Your task to perform on an android device: toggle pop-ups in chrome Image 0: 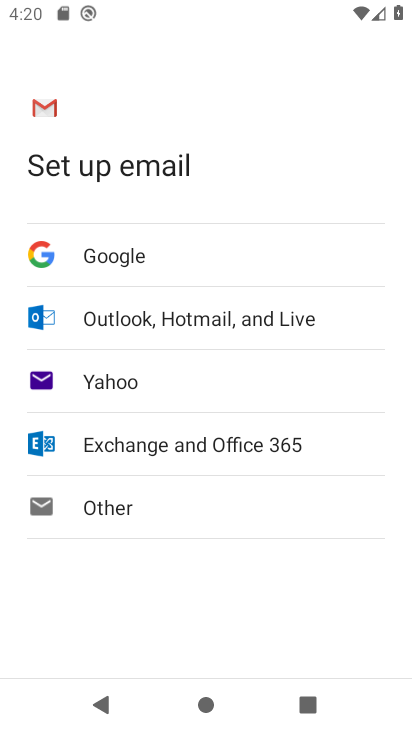
Step 0: press home button
Your task to perform on an android device: toggle pop-ups in chrome Image 1: 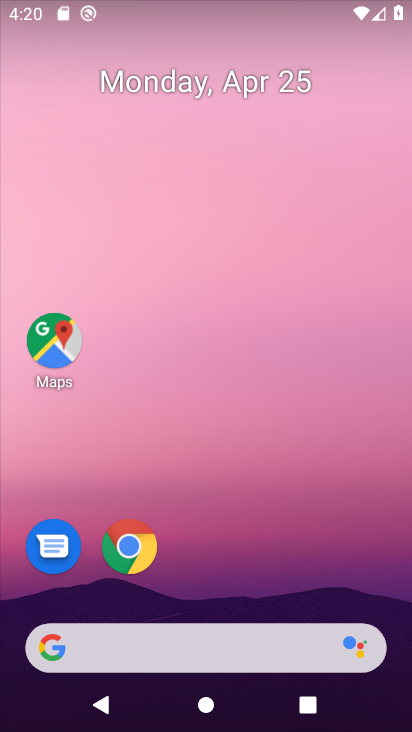
Step 1: click (128, 541)
Your task to perform on an android device: toggle pop-ups in chrome Image 2: 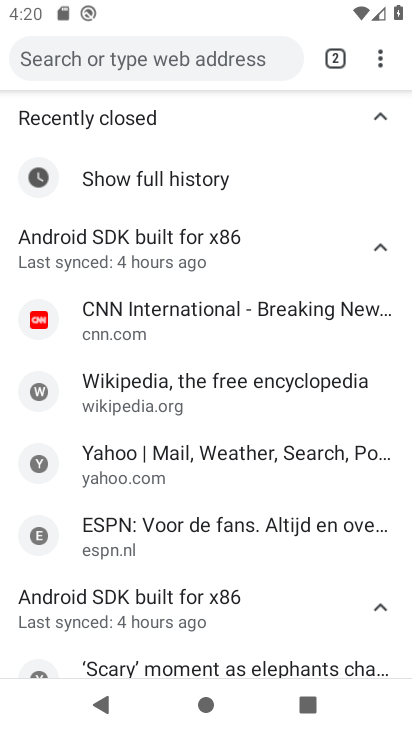
Step 2: click (389, 58)
Your task to perform on an android device: toggle pop-ups in chrome Image 3: 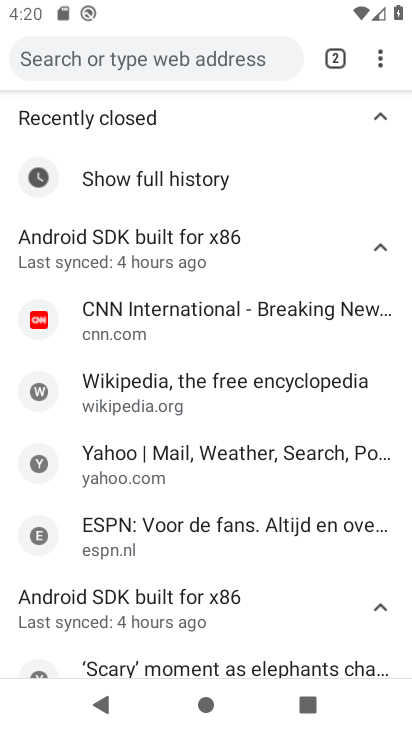
Step 3: click (381, 63)
Your task to perform on an android device: toggle pop-ups in chrome Image 4: 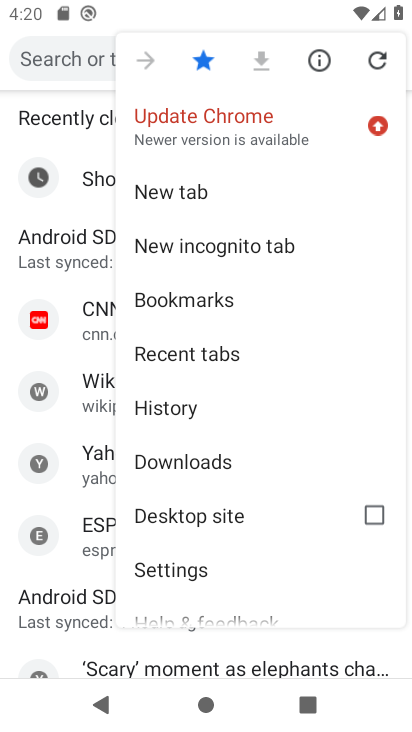
Step 4: click (254, 562)
Your task to perform on an android device: toggle pop-ups in chrome Image 5: 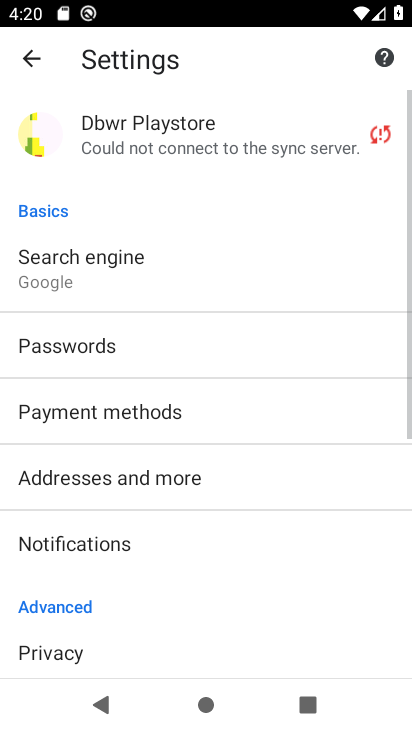
Step 5: drag from (260, 580) to (297, 164)
Your task to perform on an android device: toggle pop-ups in chrome Image 6: 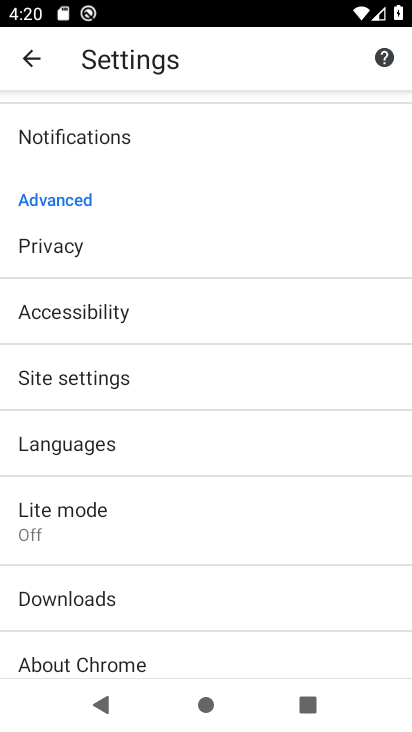
Step 6: click (200, 381)
Your task to perform on an android device: toggle pop-ups in chrome Image 7: 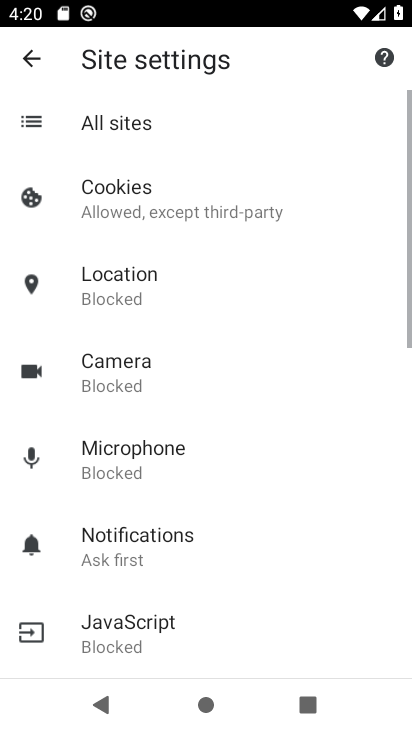
Step 7: drag from (208, 468) to (279, 184)
Your task to perform on an android device: toggle pop-ups in chrome Image 8: 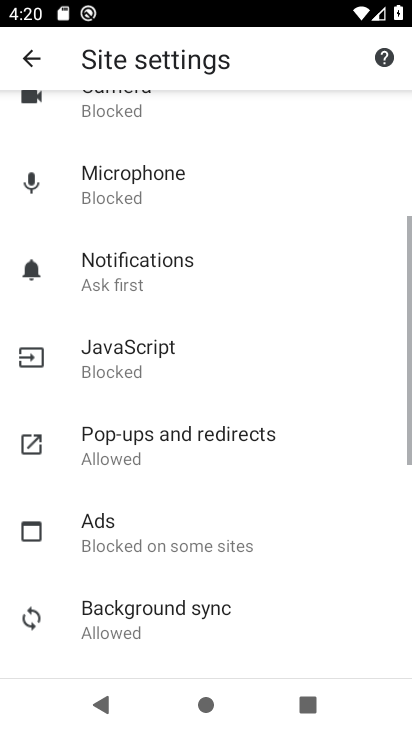
Step 8: click (256, 452)
Your task to perform on an android device: toggle pop-ups in chrome Image 9: 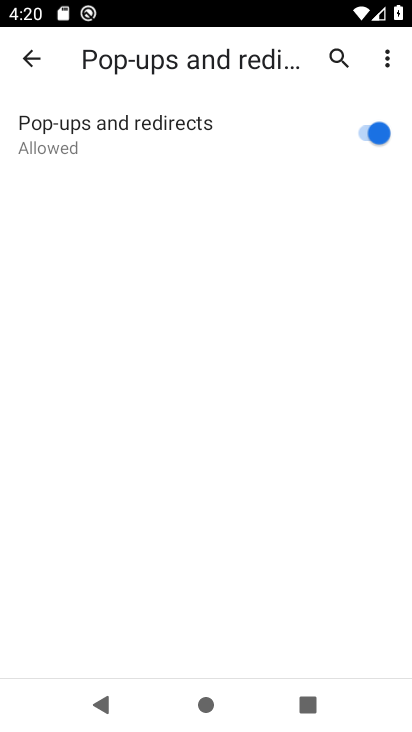
Step 9: click (380, 116)
Your task to perform on an android device: toggle pop-ups in chrome Image 10: 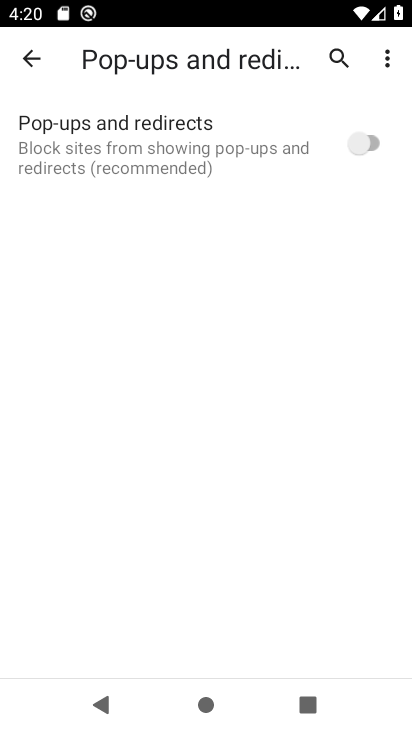
Step 10: task complete